Your task to perform on an android device: turn on showing notifications on the lock screen Image 0: 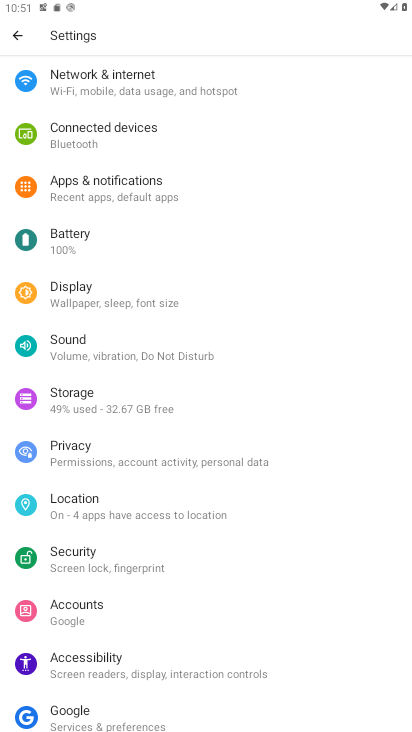
Step 0: click (177, 188)
Your task to perform on an android device: turn on showing notifications on the lock screen Image 1: 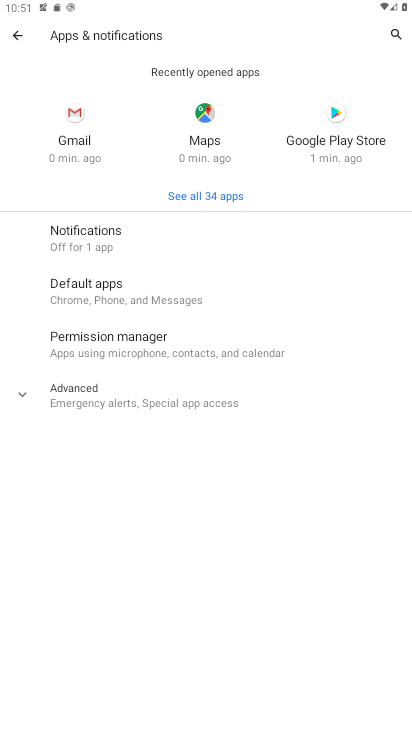
Step 1: click (162, 249)
Your task to perform on an android device: turn on showing notifications on the lock screen Image 2: 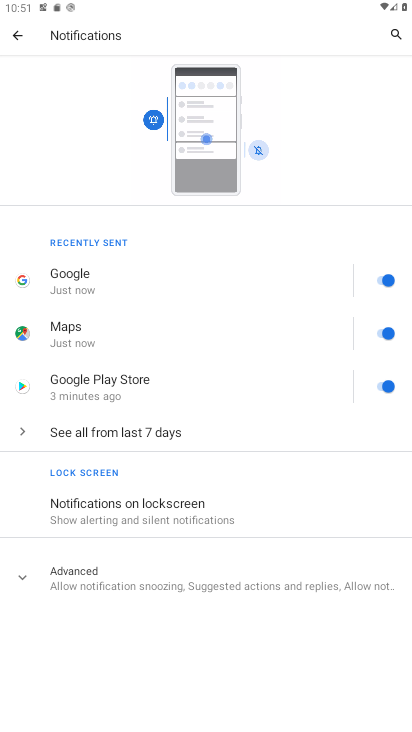
Step 2: click (217, 512)
Your task to perform on an android device: turn on showing notifications on the lock screen Image 3: 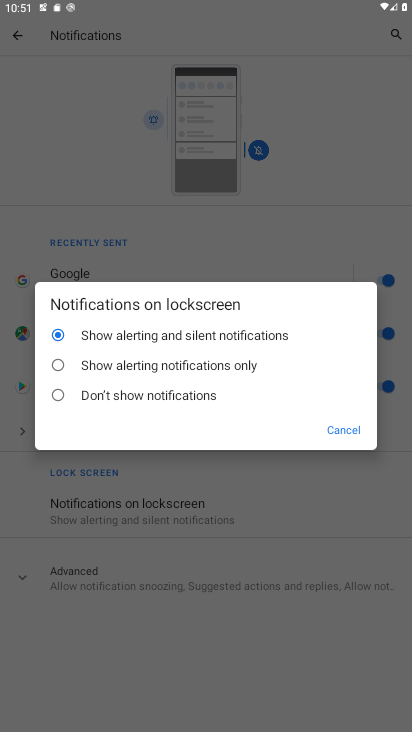
Step 3: task complete